Your task to perform on an android device: open app "Etsy: Buy & Sell Unique Items" (install if not already installed) and enter user name: "camp@inbox.com" and password: "unrelated" Image 0: 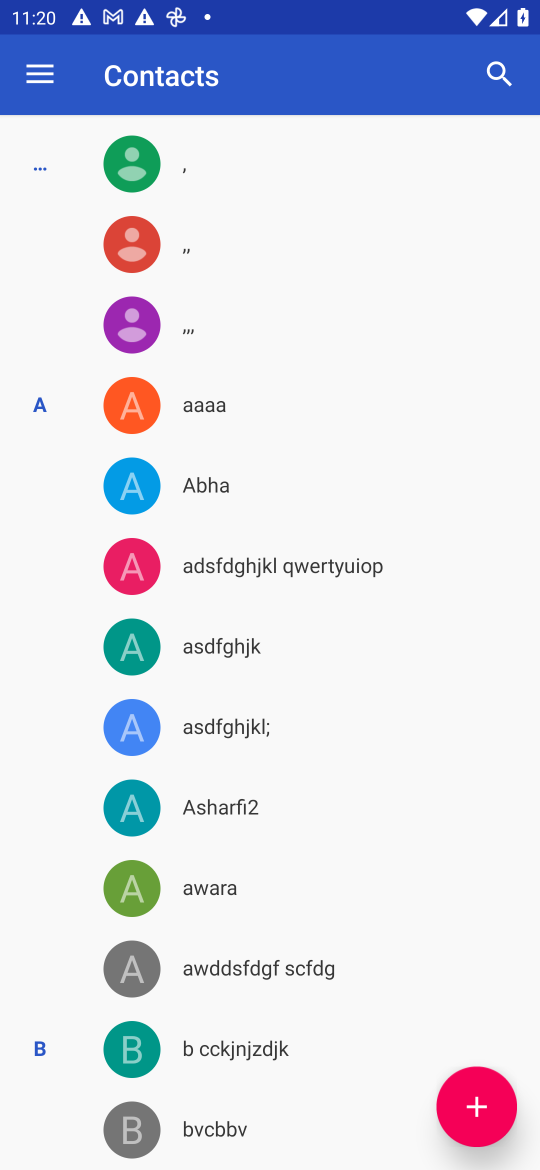
Step 0: press home button
Your task to perform on an android device: open app "Etsy: Buy & Sell Unique Items" (install if not already installed) and enter user name: "camp@inbox.com" and password: "unrelated" Image 1: 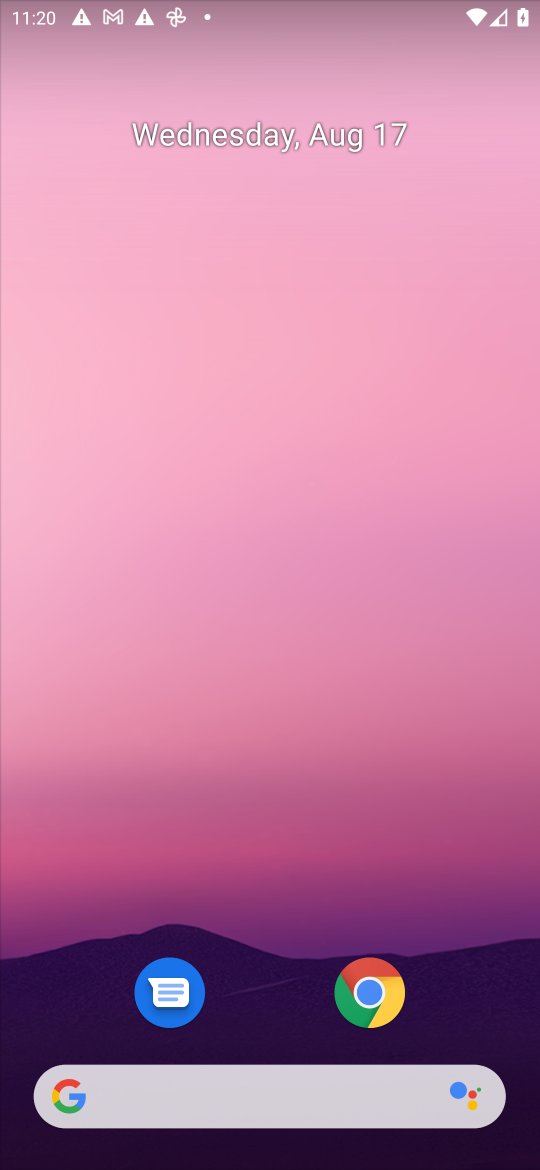
Step 1: drag from (514, 1036) to (149, 16)
Your task to perform on an android device: open app "Etsy: Buy & Sell Unique Items" (install if not already installed) and enter user name: "camp@inbox.com" and password: "unrelated" Image 2: 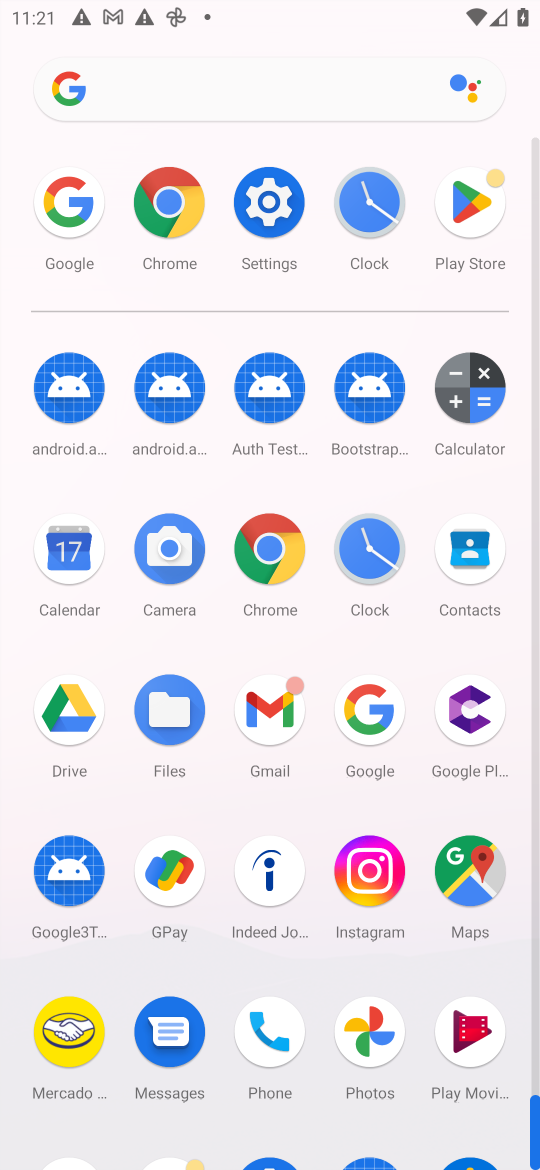
Step 2: click (486, 204)
Your task to perform on an android device: open app "Etsy: Buy & Sell Unique Items" (install if not already installed) and enter user name: "camp@inbox.com" and password: "unrelated" Image 3: 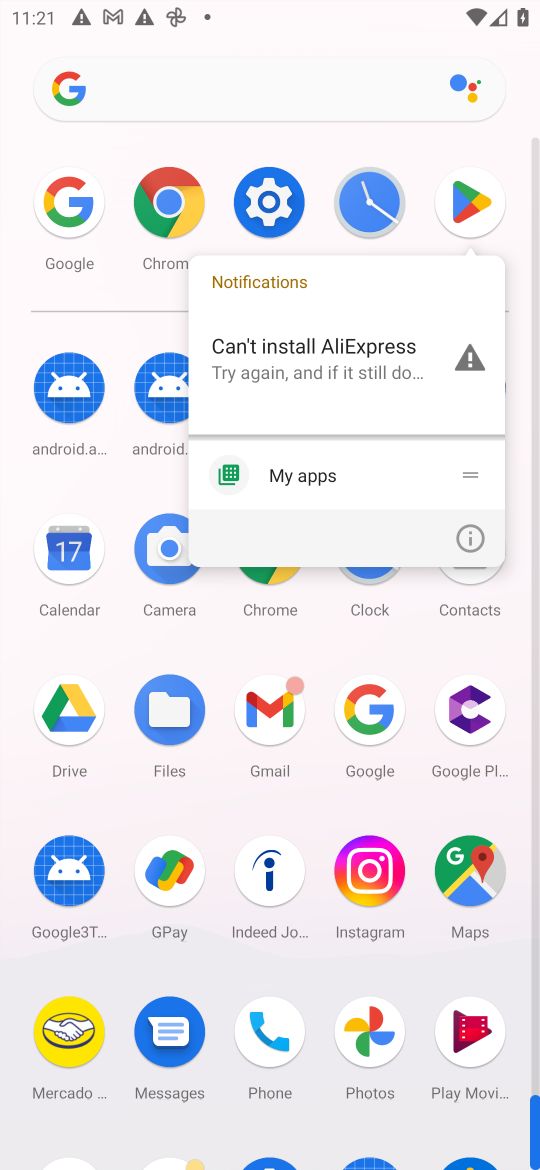
Step 3: click (461, 202)
Your task to perform on an android device: open app "Etsy: Buy & Sell Unique Items" (install if not already installed) and enter user name: "camp@inbox.com" and password: "unrelated" Image 4: 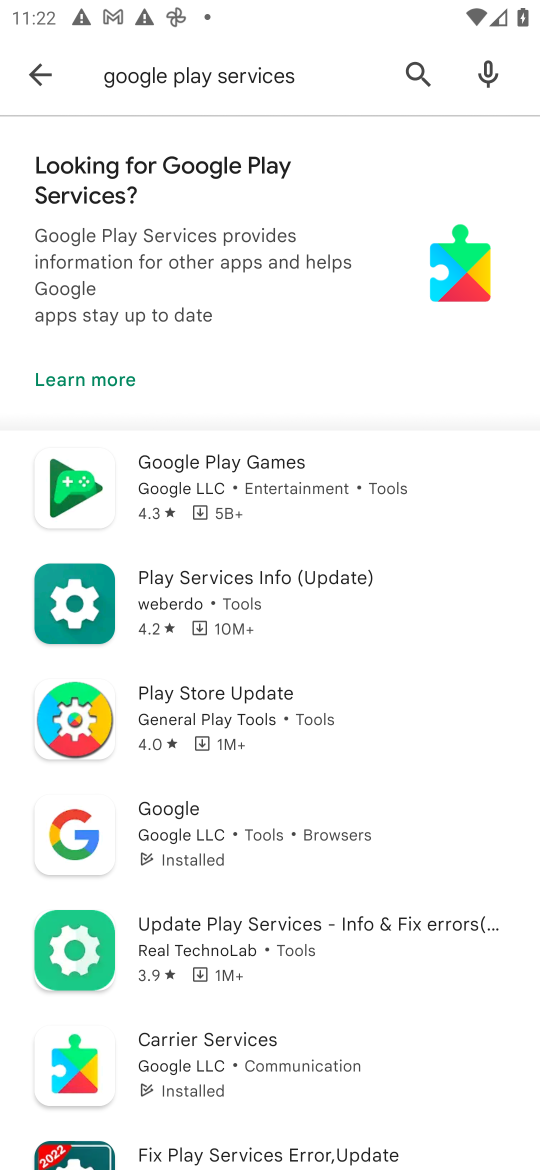
Step 4: press back button
Your task to perform on an android device: open app "Etsy: Buy & Sell Unique Items" (install if not already installed) and enter user name: "camp@inbox.com" and password: "unrelated" Image 5: 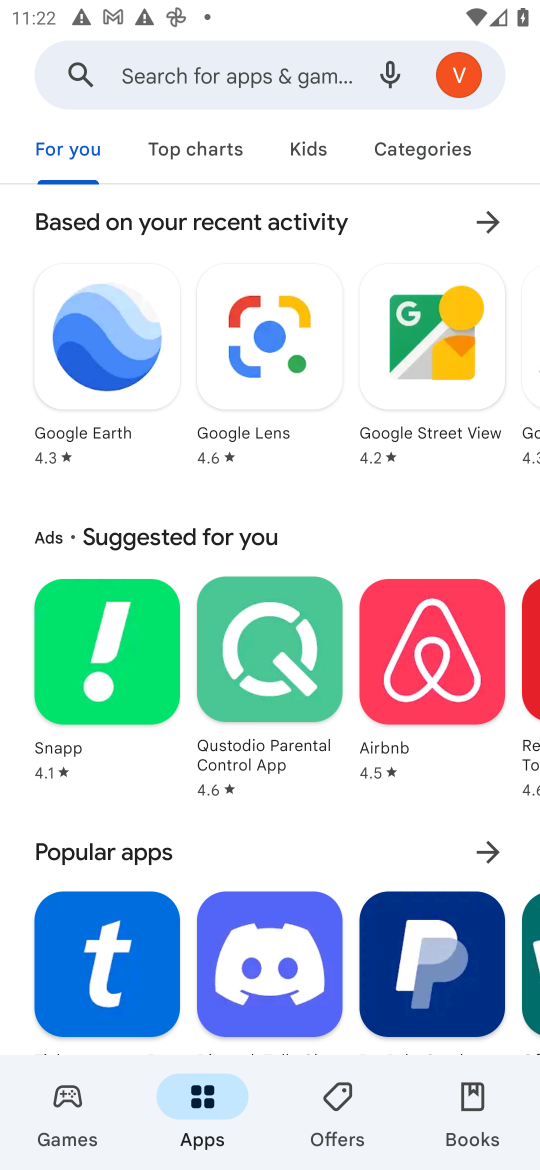
Step 5: click (178, 74)
Your task to perform on an android device: open app "Etsy: Buy & Sell Unique Items" (install if not already installed) and enter user name: "camp@inbox.com" and password: "unrelated" Image 6: 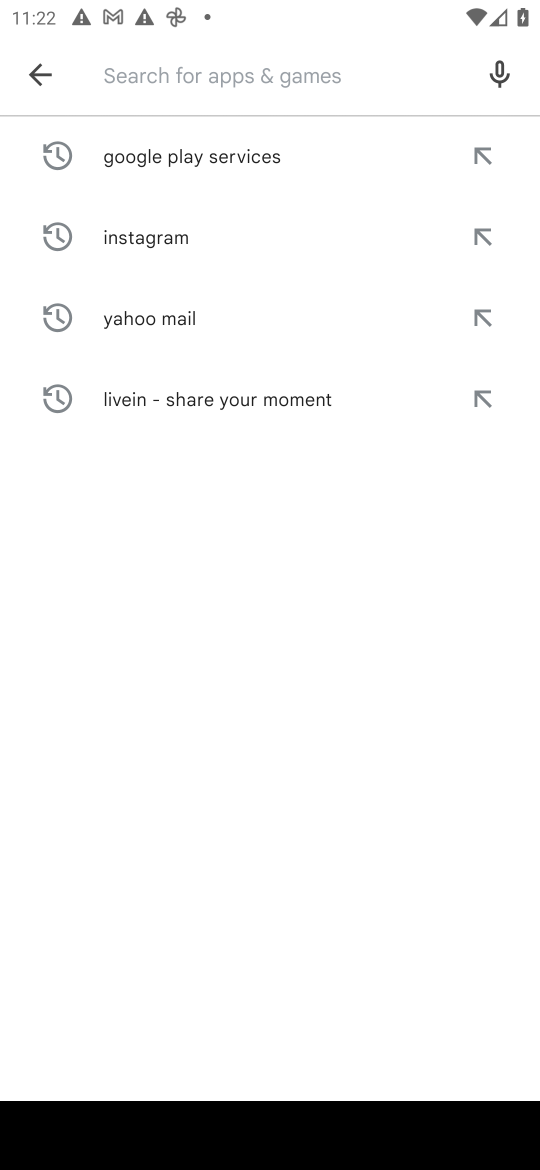
Step 6: type "Etsy: Buy & Sell Unique Items"
Your task to perform on an android device: open app "Etsy: Buy & Sell Unique Items" (install if not already installed) and enter user name: "camp@inbox.com" and password: "unrelated" Image 7: 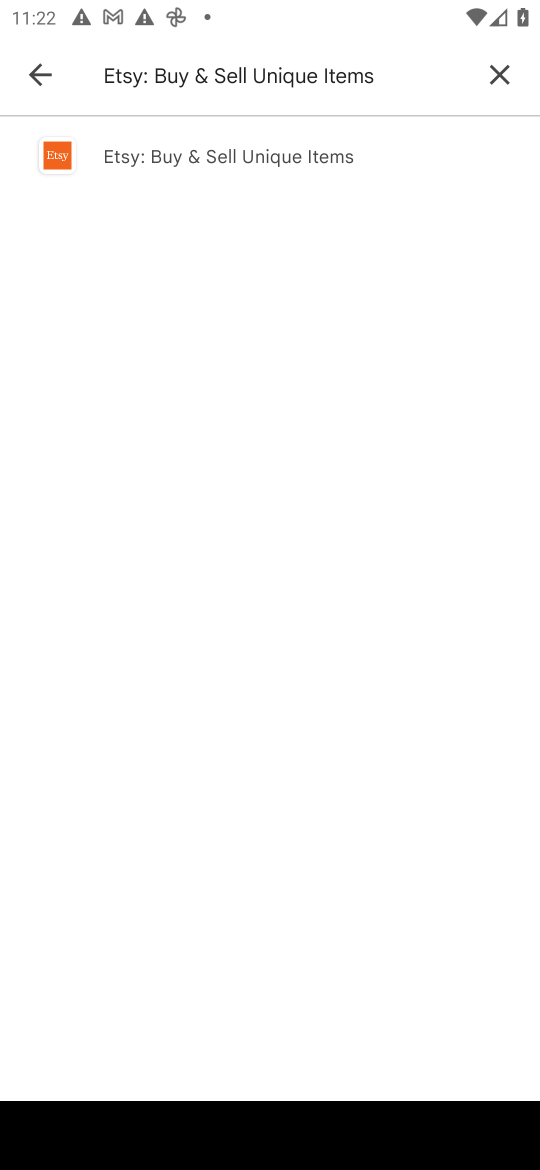
Step 7: click (191, 152)
Your task to perform on an android device: open app "Etsy: Buy & Sell Unique Items" (install if not already installed) and enter user name: "camp@inbox.com" and password: "unrelated" Image 8: 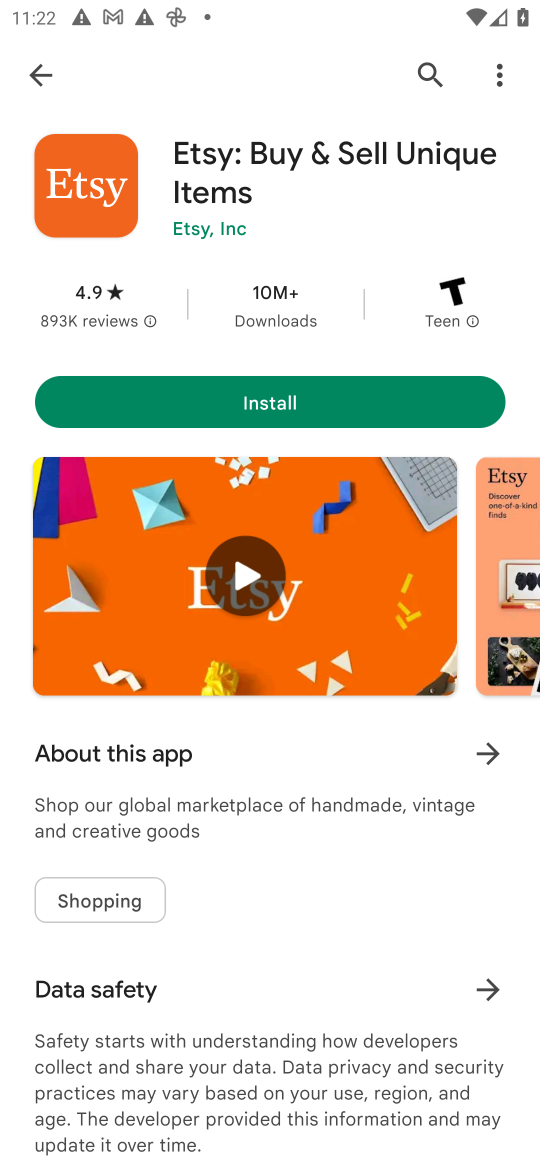
Step 8: task complete